Your task to perform on an android device: Show me productivity apps on the Play Store Image 0: 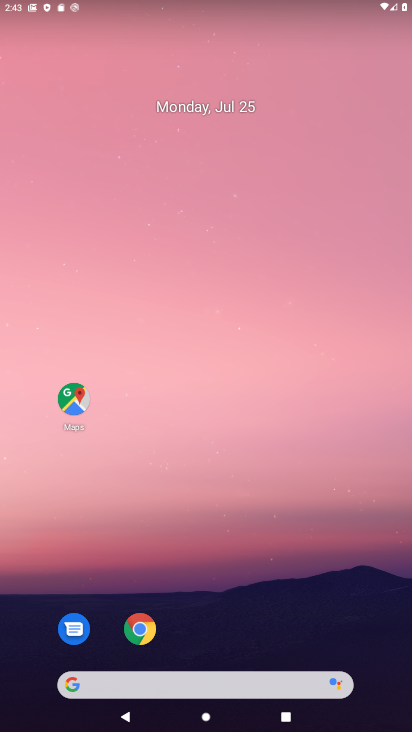
Step 0: drag from (256, 612) to (113, 246)
Your task to perform on an android device: Show me productivity apps on the Play Store Image 1: 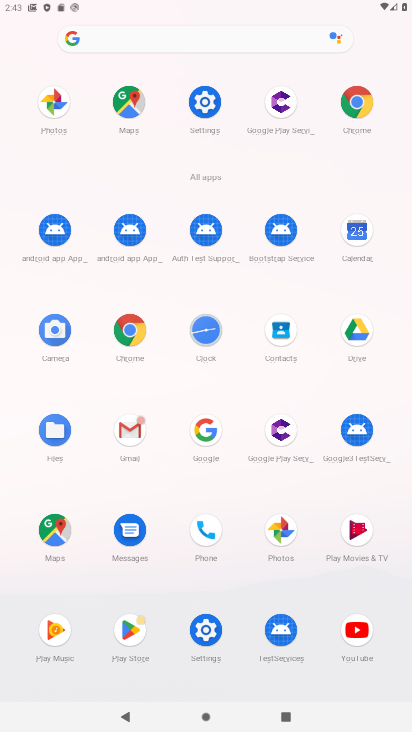
Step 1: click (134, 633)
Your task to perform on an android device: Show me productivity apps on the Play Store Image 2: 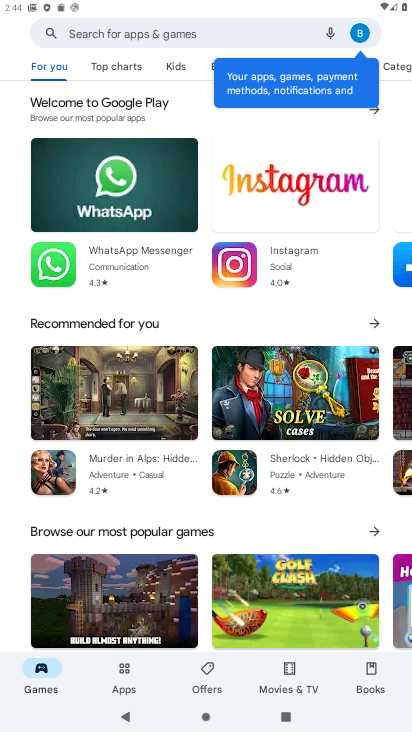
Step 2: click (118, 681)
Your task to perform on an android device: Show me productivity apps on the Play Store Image 3: 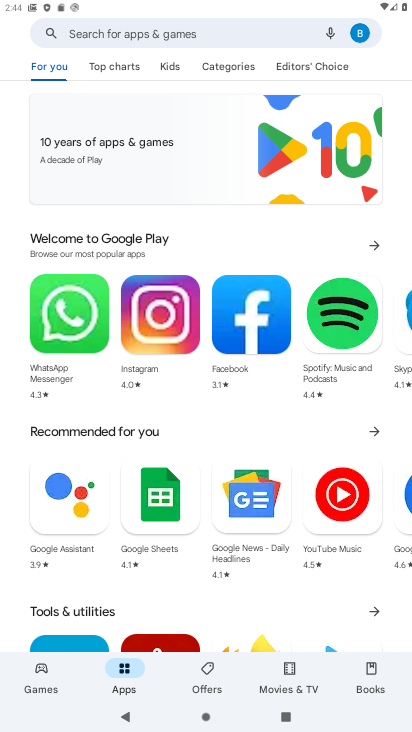
Step 3: click (240, 61)
Your task to perform on an android device: Show me productivity apps on the Play Store Image 4: 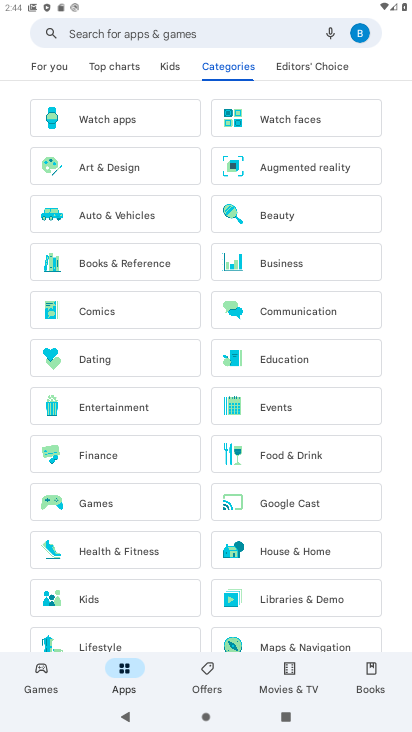
Step 4: drag from (244, 548) to (220, 216)
Your task to perform on an android device: Show me productivity apps on the Play Store Image 5: 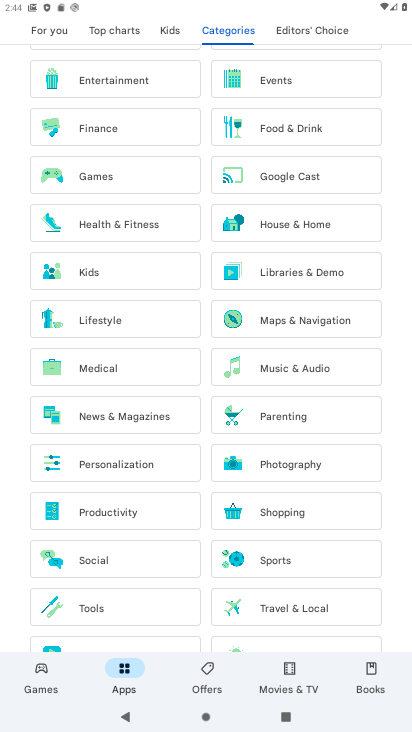
Step 5: click (167, 513)
Your task to perform on an android device: Show me productivity apps on the Play Store Image 6: 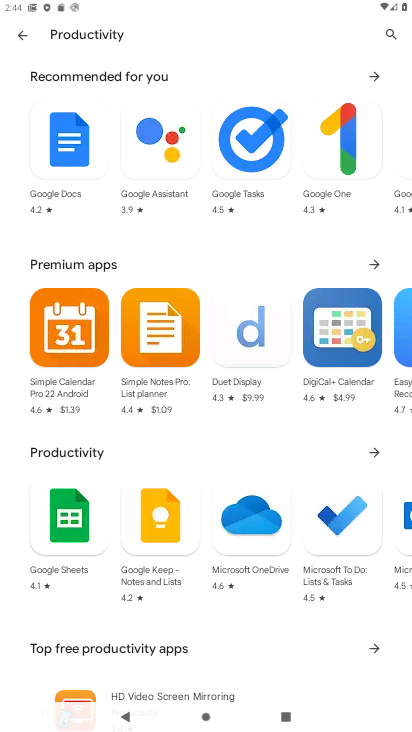
Step 6: task complete